Your task to perform on an android device: toggle priority inbox in the gmail app Image 0: 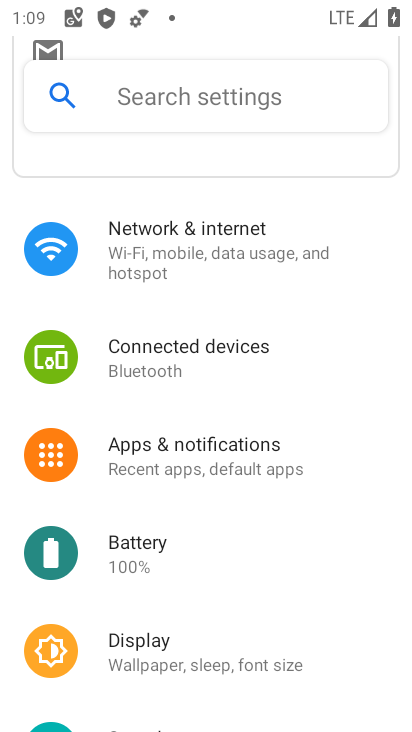
Step 0: drag from (352, 588) to (346, 454)
Your task to perform on an android device: toggle priority inbox in the gmail app Image 1: 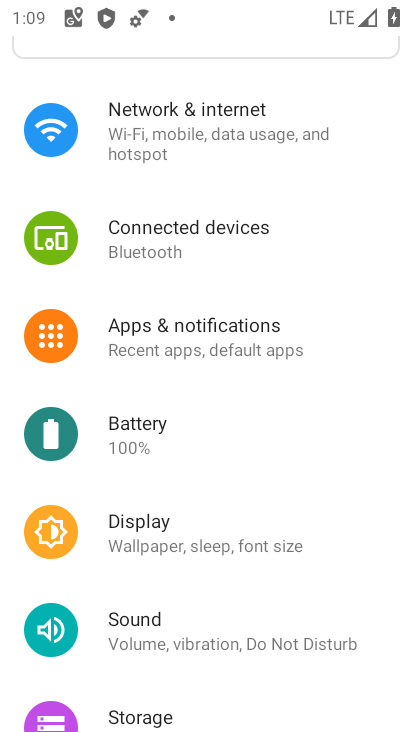
Step 1: drag from (349, 513) to (357, 471)
Your task to perform on an android device: toggle priority inbox in the gmail app Image 2: 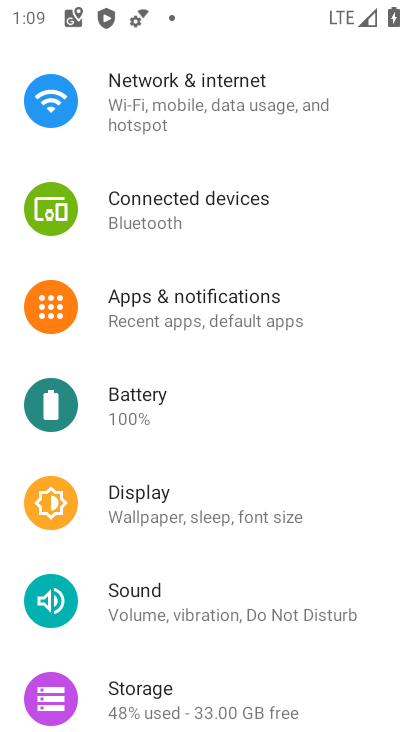
Step 2: drag from (366, 538) to (363, 456)
Your task to perform on an android device: toggle priority inbox in the gmail app Image 3: 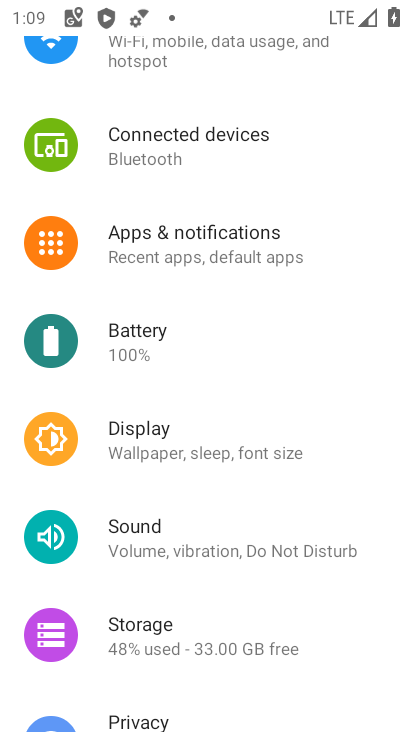
Step 3: press home button
Your task to perform on an android device: toggle priority inbox in the gmail app Image 4: 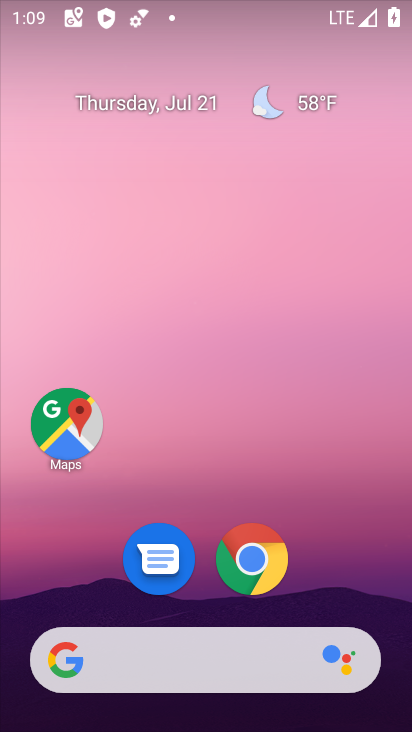
Step 4: drag from (377, 571) to (350, 121)
Your task to perform on an android device: toggle priority inbox in the gmail app Image 5: 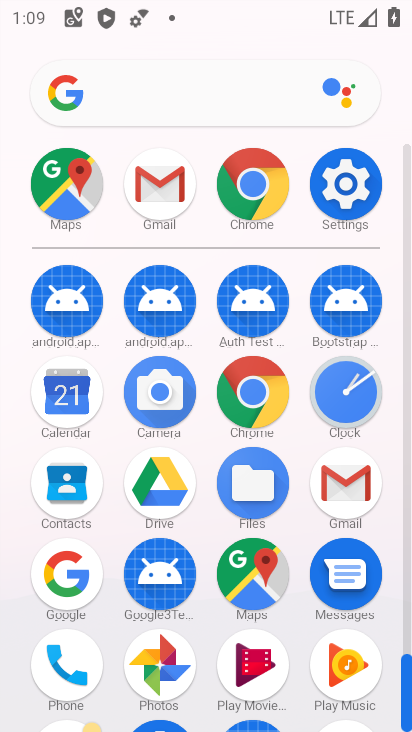
Step 5: click (379, 490)
Your task to perform on an android device: toggle priority inbox in the gmail app Image 6: 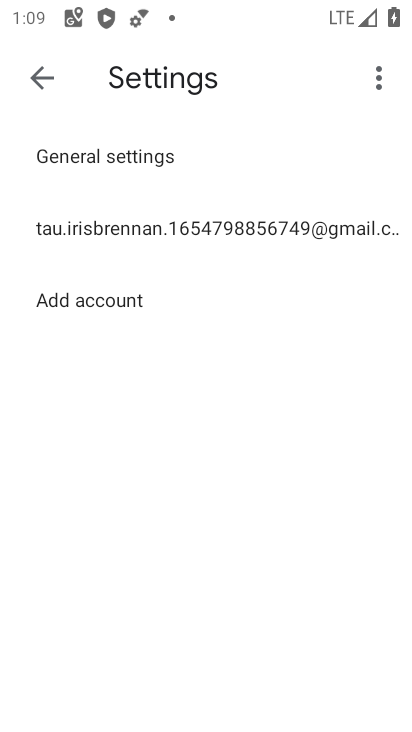
Step 6: click (198, 233)
Your task to perform on an android device: toggle priority inbox in the gmail app Image 7: 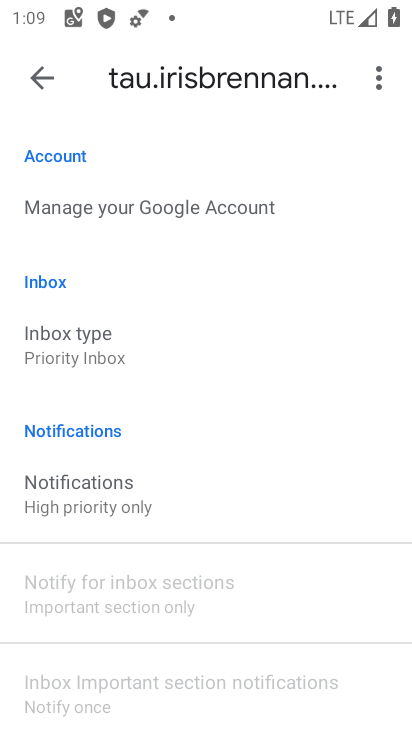
Step 7: drag from (261, 402) to (265, 336)
Your task to perform on an android device: toggle priority inbox in the gmail app Image 8: 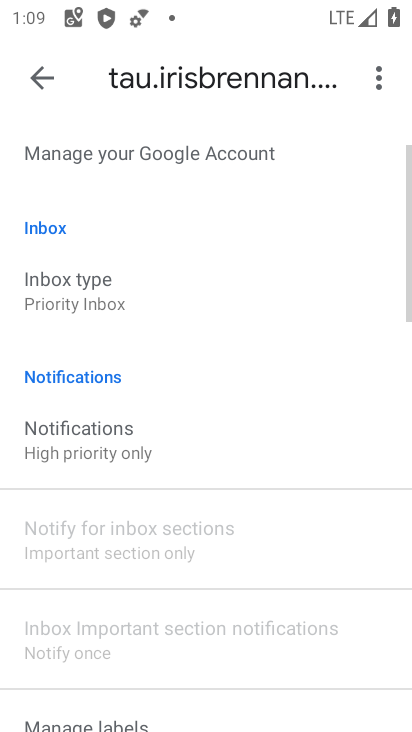
Step 8: drag from (282, 456) to (283, 371)
Your task to perform on an android device: toggle priority inbox in the gmail app Image 9: 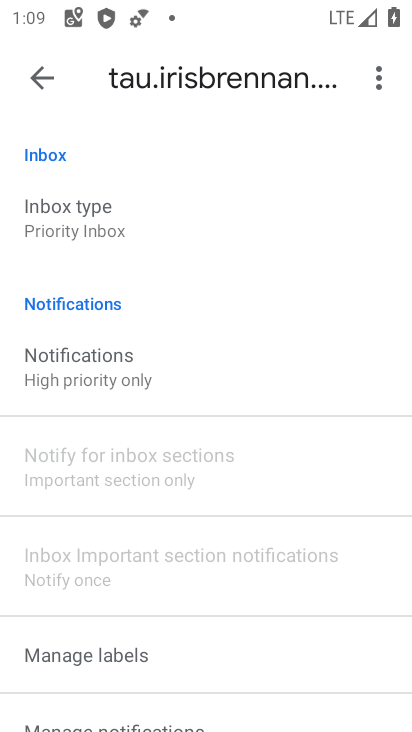
Step 9: click (289, 286)
Your task to perform on an android device: toggle priority inbox in the gmail app Image 10: 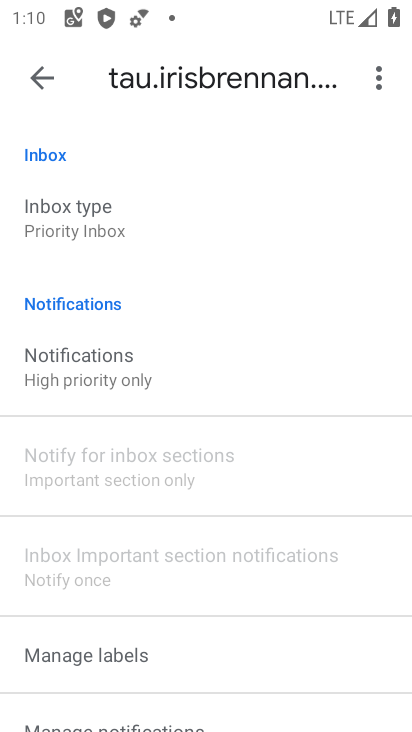
Step 10: drag from (291, 249) to (291, 340)
Your task to perform on an android device: toggle priority inbox in the gmail app Image 11: 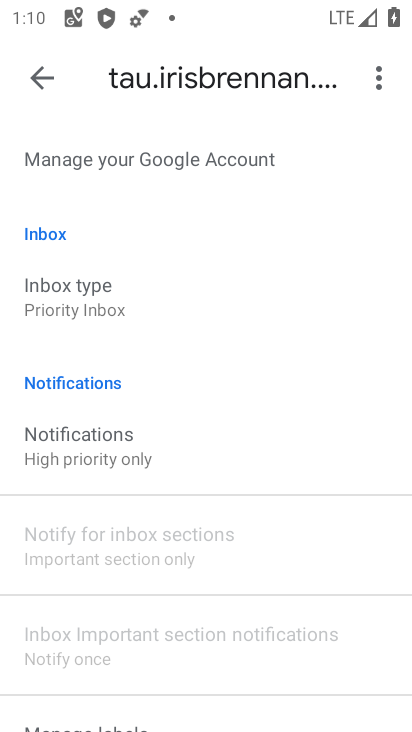
Step 11: click (295, 316)
Your task to perform on an android device: toggle priority inbox in the gmail app Image 12: 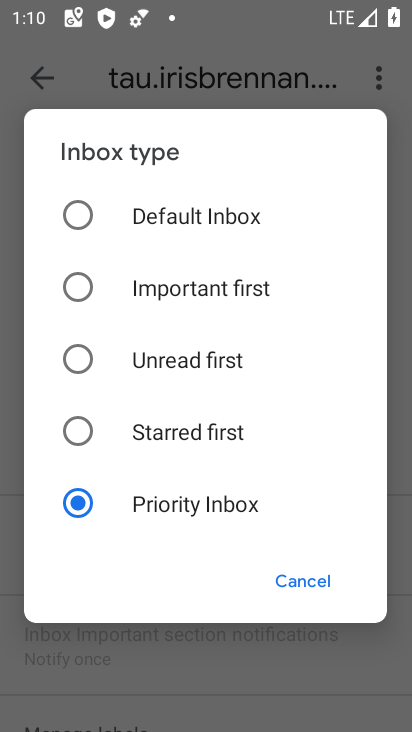
Step 12: task complete